Your task to perform on an android device: Add "lenovo thinkpad" to the cart on walmart.com, then select checkout. Image 0: 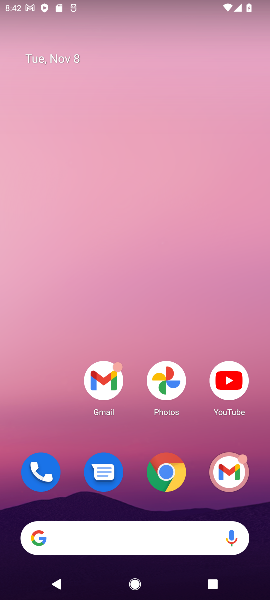
Step 0: click (167, 471)
Your task to perform on an android device: Add "lenovo thinkpad" to the cart on walmart.com, then select checkout. Image 1: 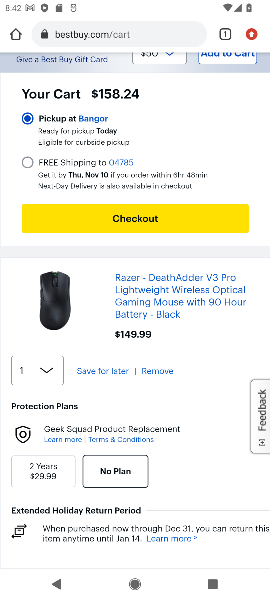
Step 1: click (153, 38)
Your task to perform on an android device: Add "lenovo thinkpad" to the cart on walmart.com, then select checkout. Image 2: 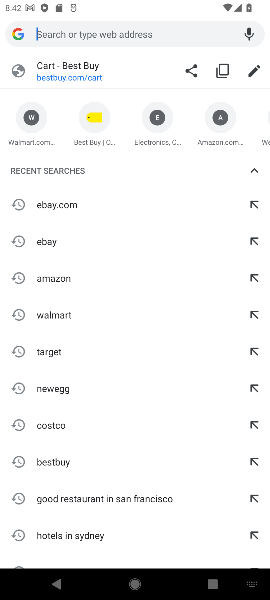
Step 2: click (33, 137)
Your task to perform on an android device: Add "lenovo thinkpad" to the cart on walmart.com, then select checkout. Image 3: 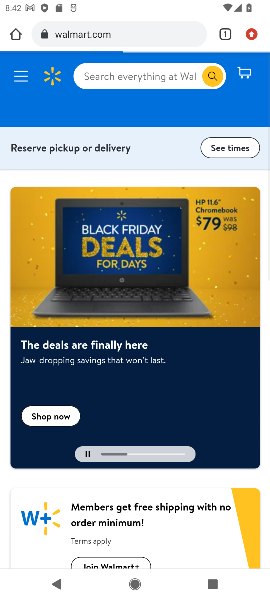
Step 3: click (98, 76)
Your task to perform on an android device: Add "lenovo thinkpad" to the cart on walmart.com, then select checkout. Image 4: 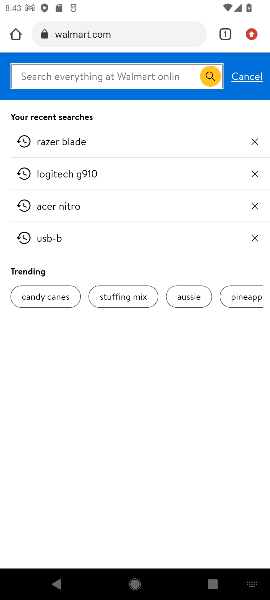
Step 4: type "lenovo thinkpad"
Your task to perform on an android device: Add "lenovo thinkpad" to the cart on walmart.com, then select checkout. Image 5: 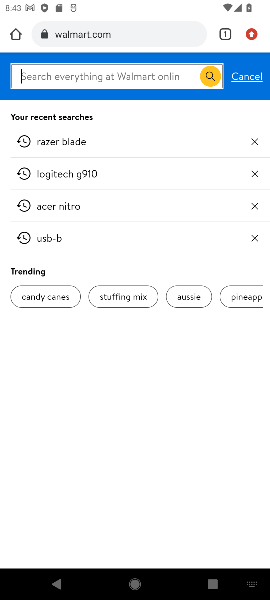
Step 5: press enter
Your task to perform on an android device: Add "lenovo thinkpad" to the cart on walmart.com, then select checkout. Image 6: 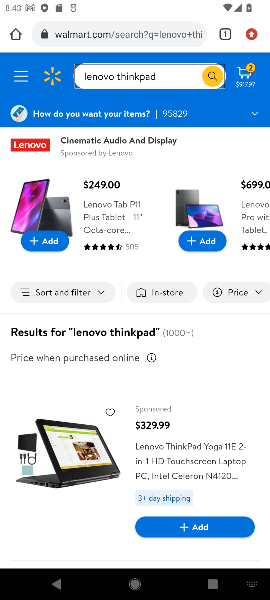
Step 6: click (191, 525)
Your task to perform on an android device: Add "lenovo thinkpad" to the cart on walmart.com, then select checkout. Image 7: 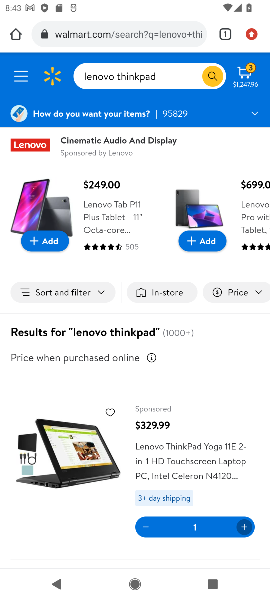
Step 7: click (243, 73)
Your task to perform on an android device: Add "lenovo thinkpad" to the cart on walmart.com, then select checkout. Image 8: 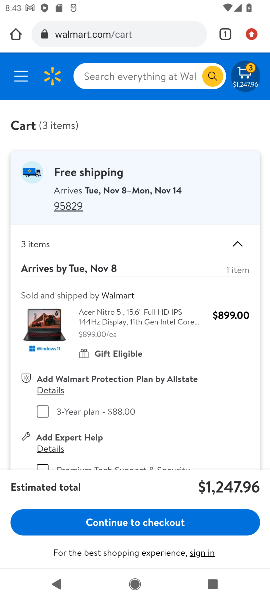
Step 8: drag from (176, 356) to (244, 125)
Your task to perform on an android device: Add "lenovo thinkpad" to the cart on walmart.com, then select checkout. Image 9: 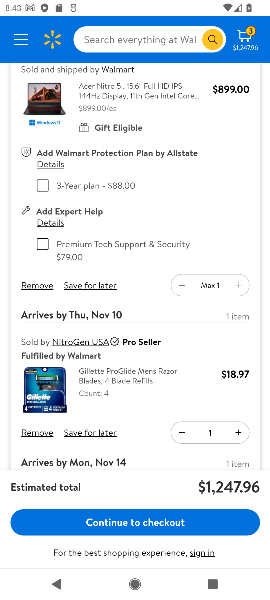
Step 9: click (37, 283)
Your task to perform on an android device: Add "lenovo thinkpad" to the cart on walmart.com, then select checkout. Image 10: 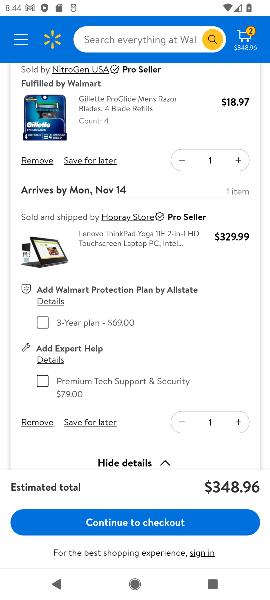
Step 10: drag from (131, 258) to (78, 506)
Your task to perform on an android device: Add "lenovo thinkpad" to the cart on walmart.com, then select checkout. Image 11: 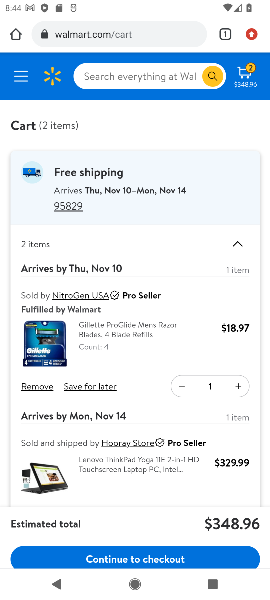
Step 11: click (40, 382)
Your task to perform on an android device: Add "lenovo thinkpad" to the cart on walmart.com, then select checkout. Image 12: 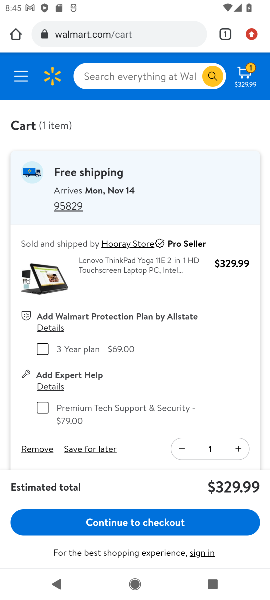
Step 12: task complete